Your task to perform on an android device: Go to display settings Image 0: 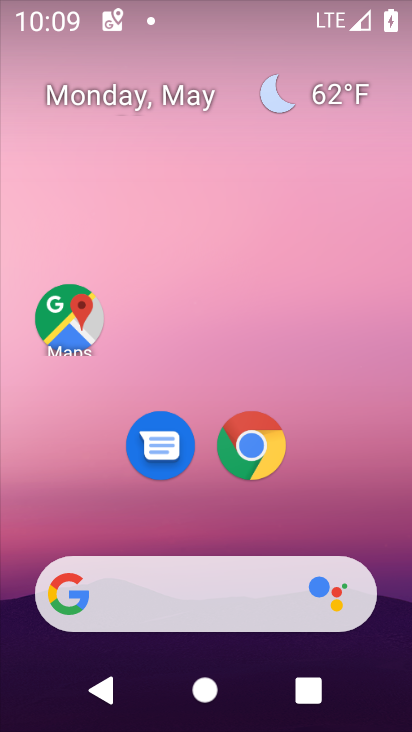
Step 0: drag from (382, 566) to (383, 54)
Your task to perform on an android device: Go to display settings Image 1: 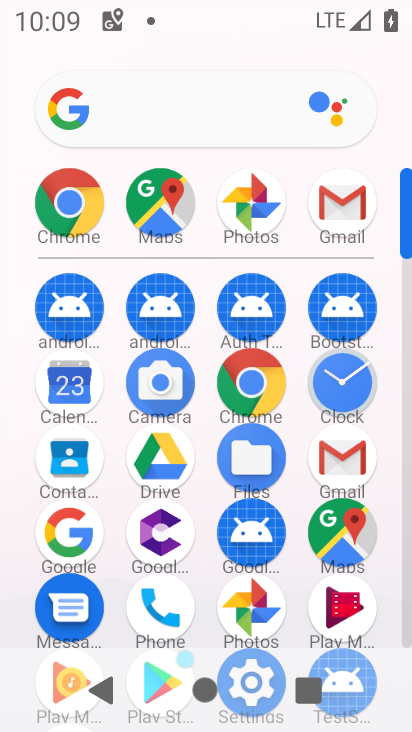
Step 1: drag from (293, 619) to (266, 237)
Your task to perform on an android device: Go to display settings Image 2: 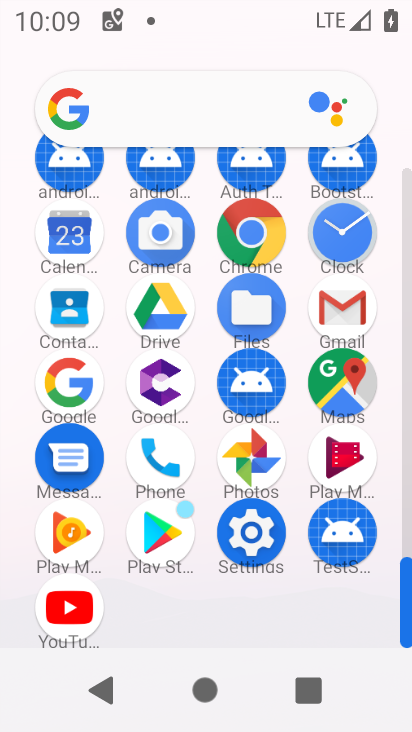
Step 2: click (251, 544)
Your task to perform on an android device: Go to display settings Image 3: 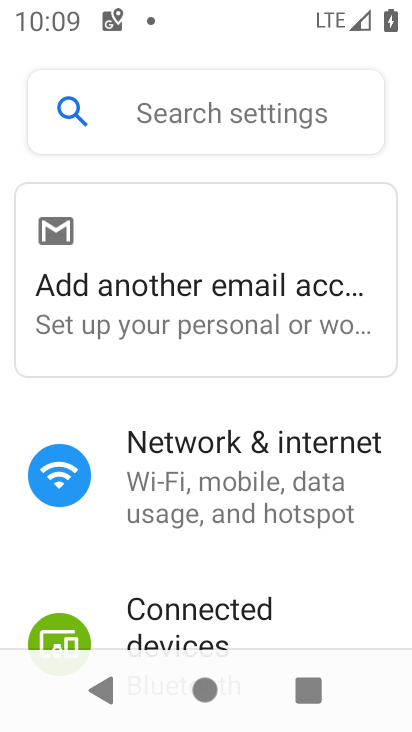
Step 3: drag from (236, 533) to (176, 134)
Your task to perform on an android device: Go to display settings Image 4: 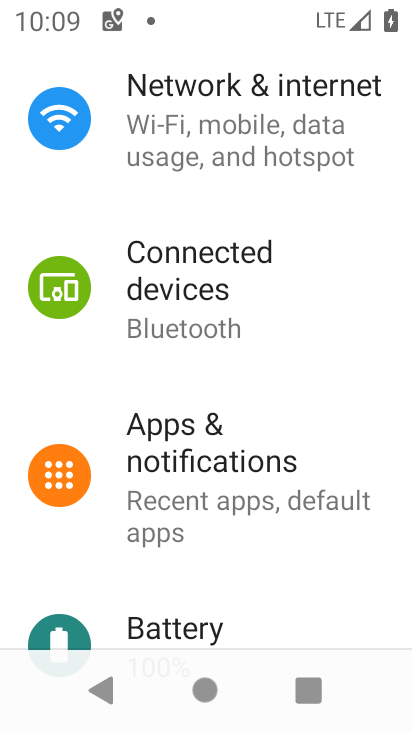
Step 4: drag from (205, 523) to (167, 126)
Your task to perform on an android device: Go to display settings Image 5: 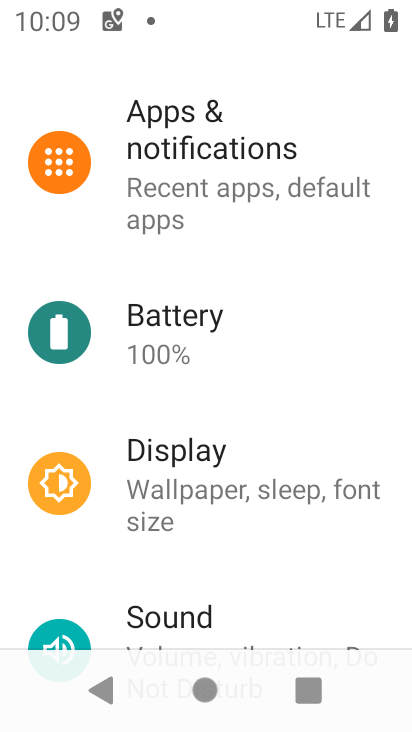
Step 5: click (175, 475)
Your task to perform on an android device: Go to display settings Image 6: 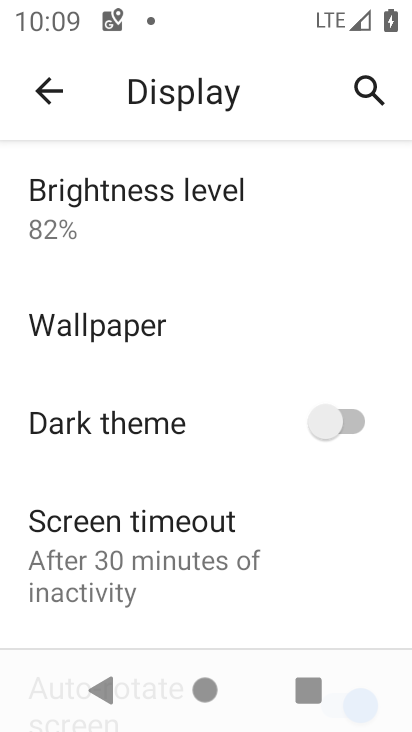
Step 6: task complete